Your task to perform on an android device: turn off smart reply in the gmail app Image 0: 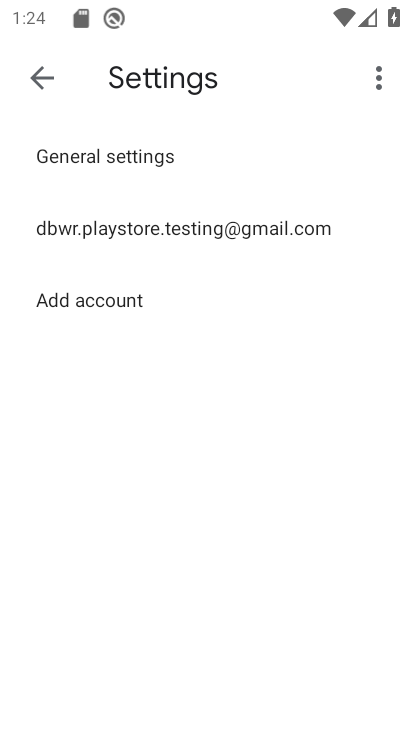
Step 0: click (279, 238)
Your task to perform on an android device: turn off smart reply in the gmail app Image 1: 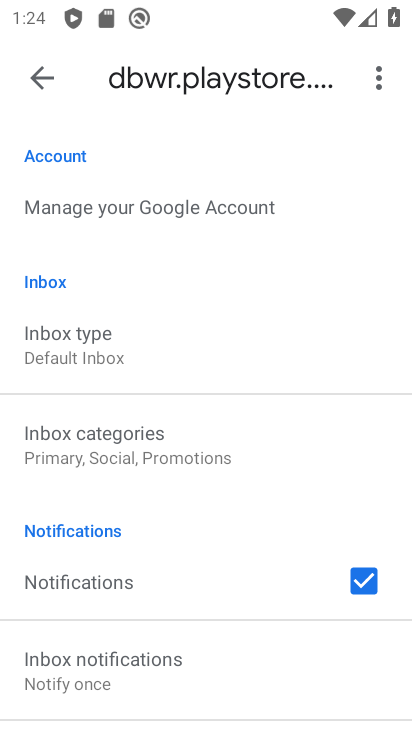
Step 1: drag from (120, 632) to (119, 12)
Your task to perform on an android device: turn off smart reply in the gmail app Image 2: 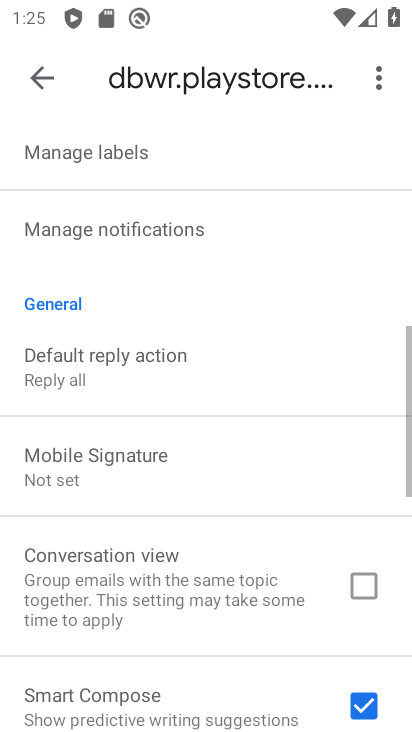
Step 2: drag from (144, 628) to (133, 140)
Your task to perform on an android device: turn off smart reply in the gmail app Image 3: 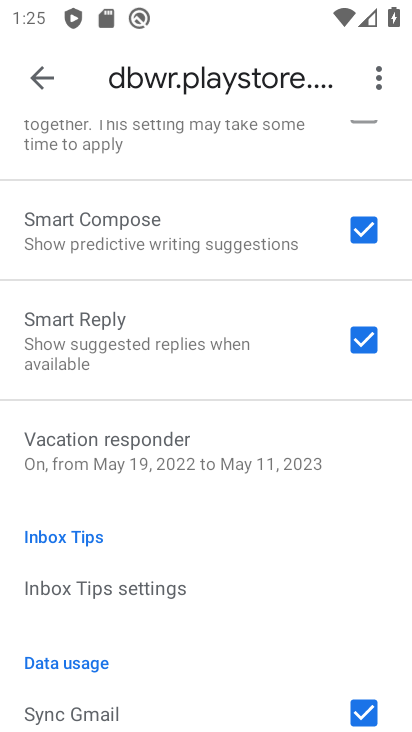
Step 3: click (349, 344)
Your task to perform on an android device: turn off smart reply in the gmail app Image 4: 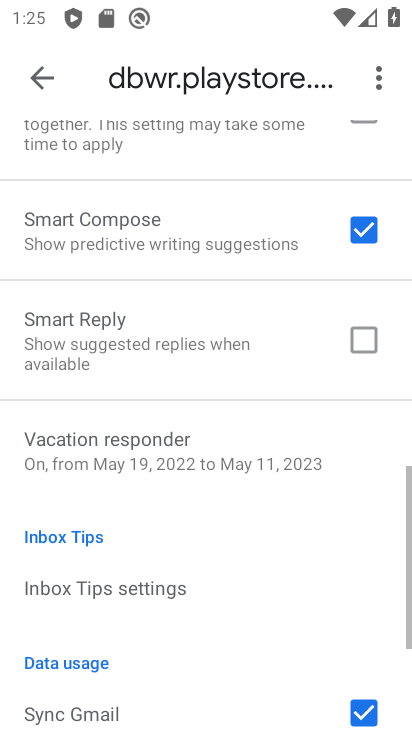
Step 4: task complete